Your task to perform on an android device: toggle improve location accuracy Image 0: 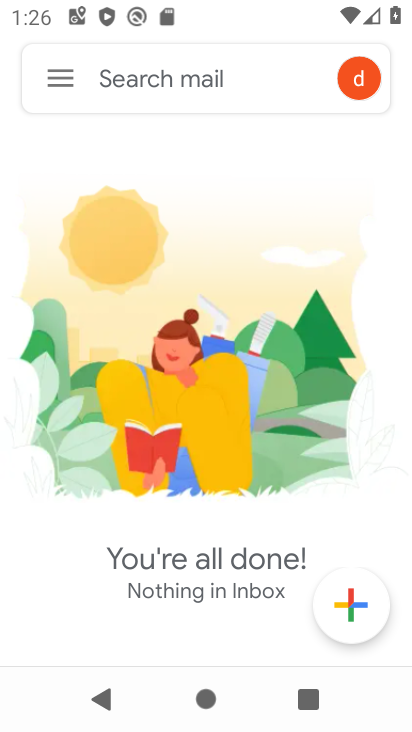
Step 0: press home button
Your task to perform on an android device: toggle improve location accuracy Image 1: 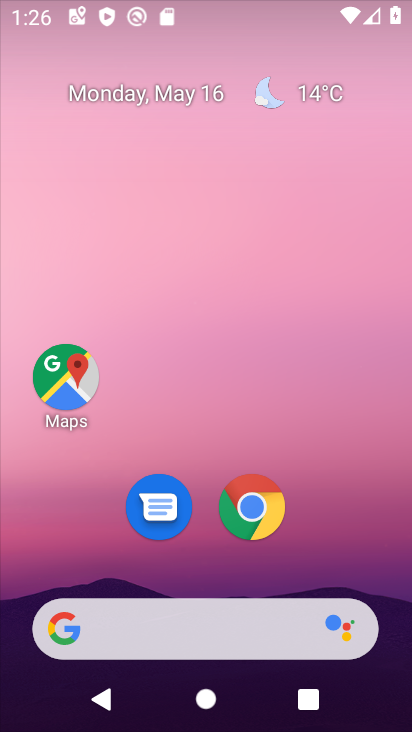
Step 1: drag from (307, 541) to (282, 225)
Your task to perform on an android device: toggle improve location accuracy Image 2: 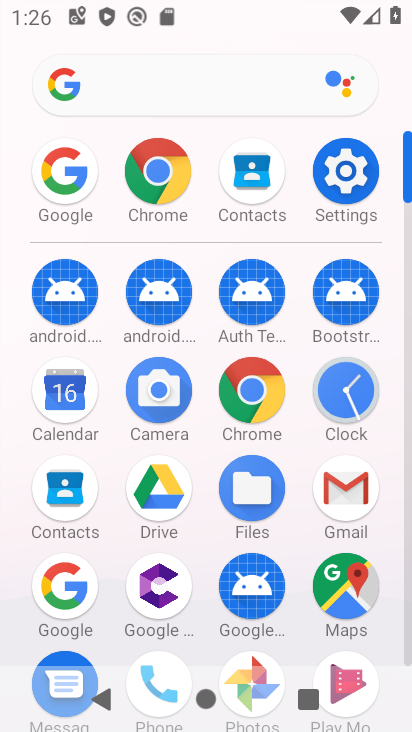
Step 2: click (336, 200)
Your task to perform on an android device: toggle improve location accuracy Image 3: 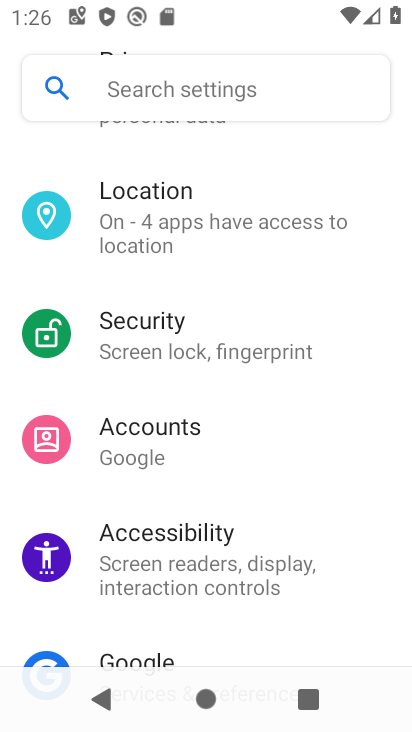
Step 3: click (312, 218)
Your task to perform on an android device: toggle improve location accuracy Image 4: 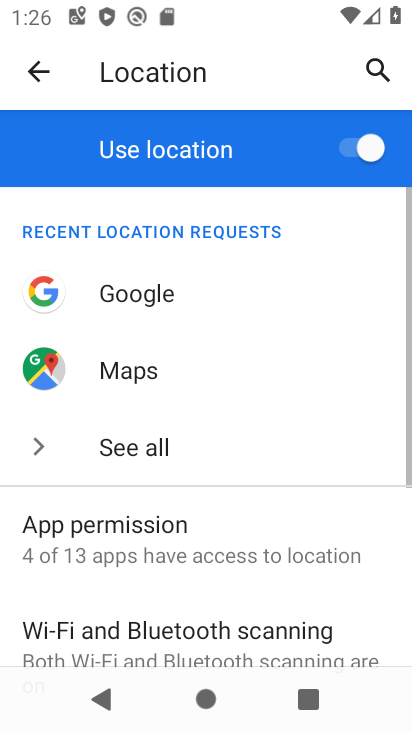
Step 4: drag from (258, 541) to (326, 173)
Your task to perform on an android device: toggle improve location accuracy Image 5: 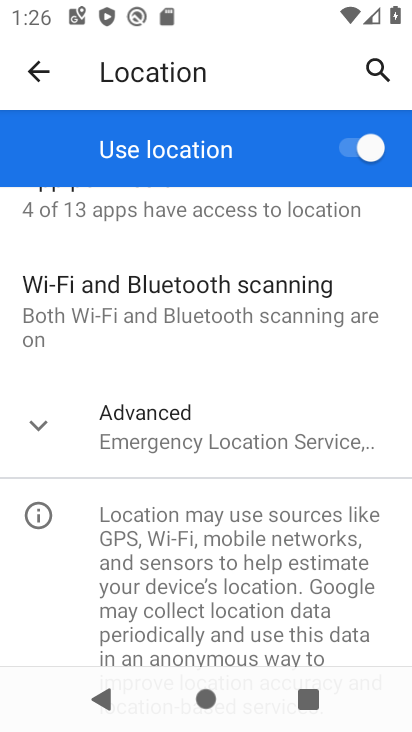
Step 5: click (240, 451)
Your task to perform on an android device: toggle improve location accuracy Image 6: 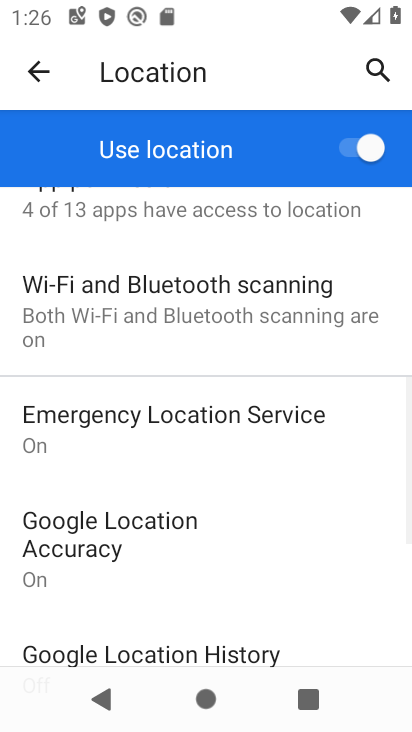
Step 6: drag from (264, 557) to (321, 302)
Your task to perform on an android device: toggle improve location accuracy Image 7: 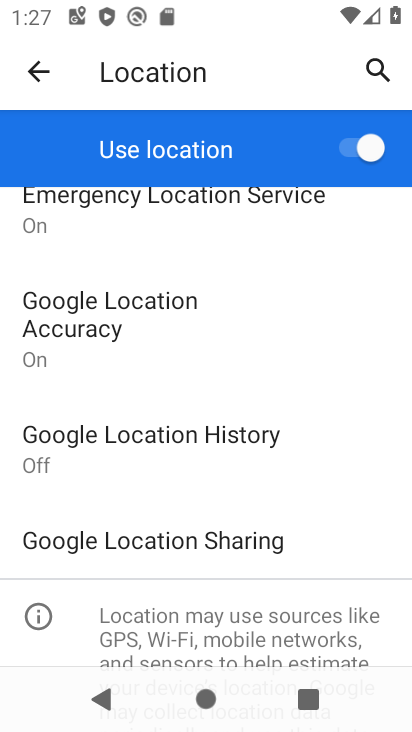
Step 7: drag from (297, 358) to (297, 595)
Your task to perform on an android device: toggle improve location accuracy Image 8: 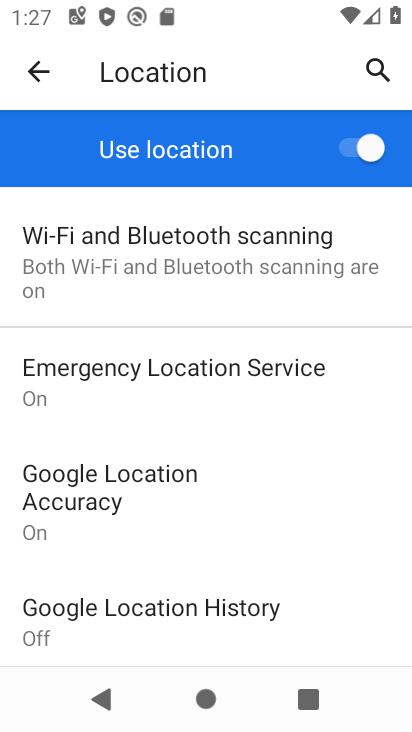
Step 8: drag from (245, 554) to (303, 205)
Your task to perform on an android device: toggle improve location accuracy Image 9: 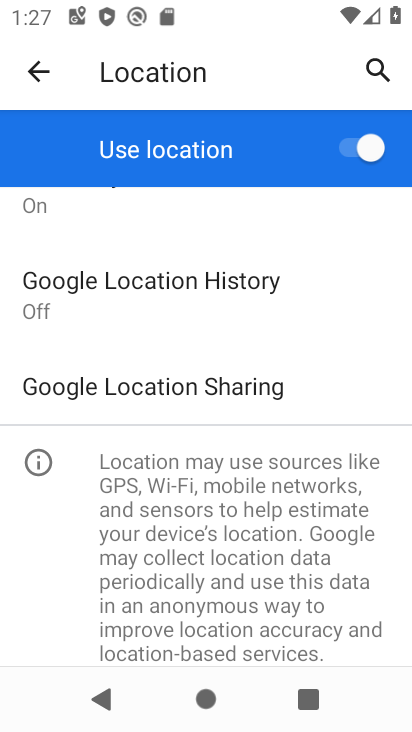
Step 9: drag from (223, 534) to (312, 232)
Your task to perform on an android device: toggle improve location accuracy Image 10: 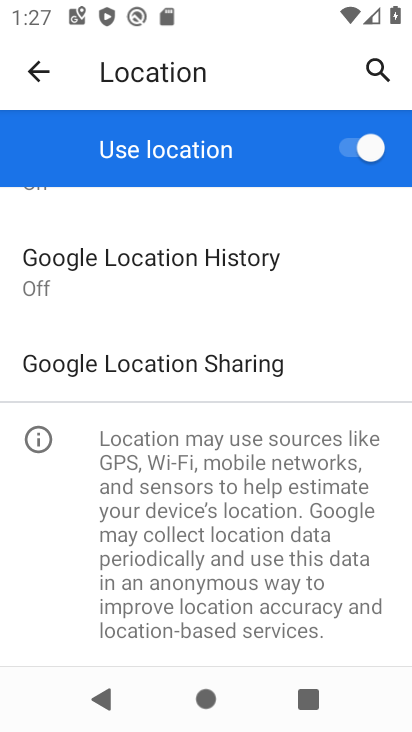
Step 10: drag from (287, 265) to (214, 667)
Your task to perform on an android device: toggle improve location accuracy Image 11: 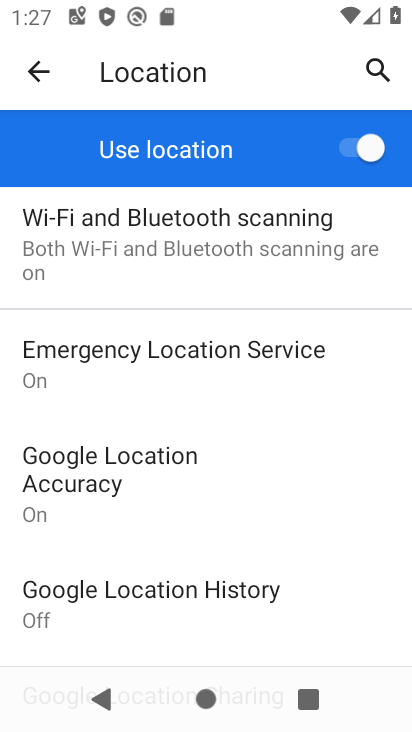
Step 11: drag from (205, 527) to (236, 413)
Your task to perform on an android device: toggle improve location accuracy Image 12: 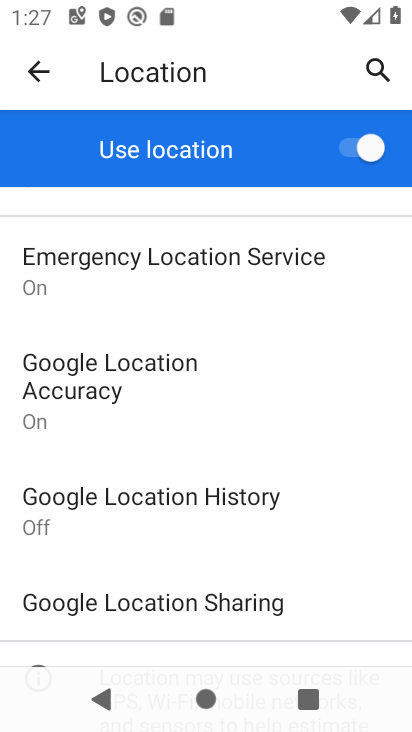
Step 12: click (223, 385)
Your task to perform on an android device: toggle improve location accuracy Image 13: 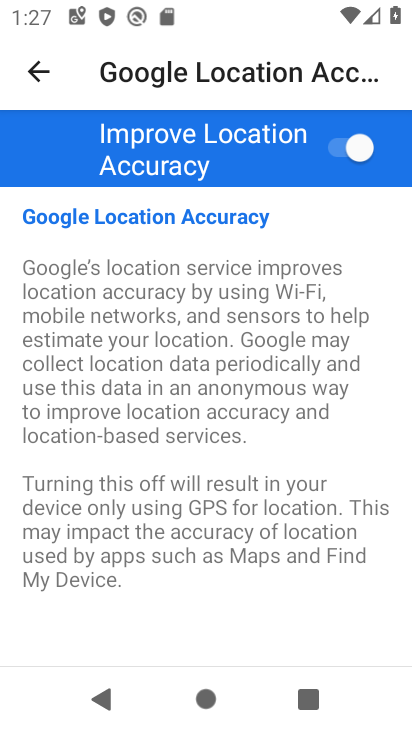
Step 13: click (354, 159)
Your task to perform on an android device: toggle improve location accuracy Image 14: 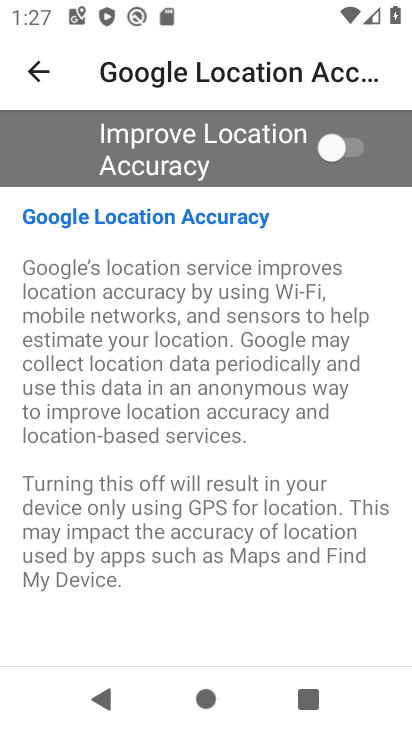
Step 14: task complete